Your task to perform on an android device: turn off picture-in-picture Image 0: 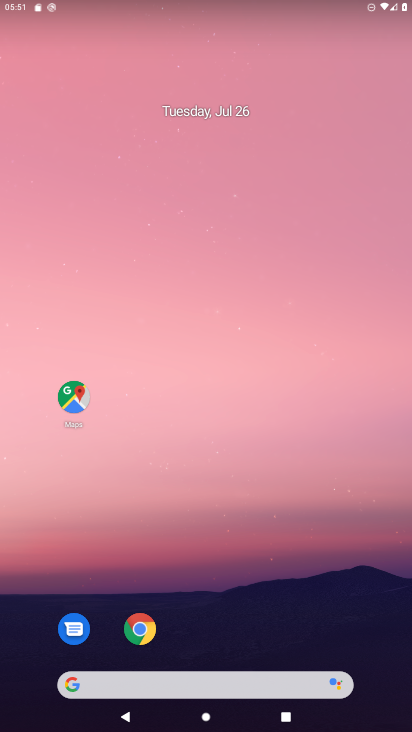
Step 0: drag from (210, 573) to (257, 39)
Your task to perform on an android device: turn off picture-in-picture Image 1: 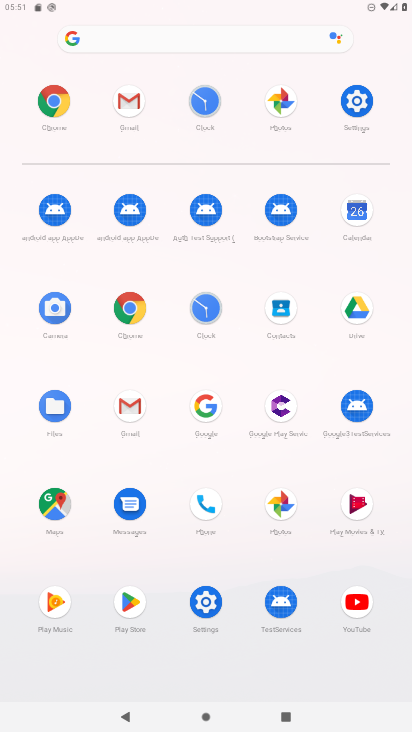
Step 1: click (359, 103)
Your task to perform on an android device: turn off picture-in-picture Image 2: 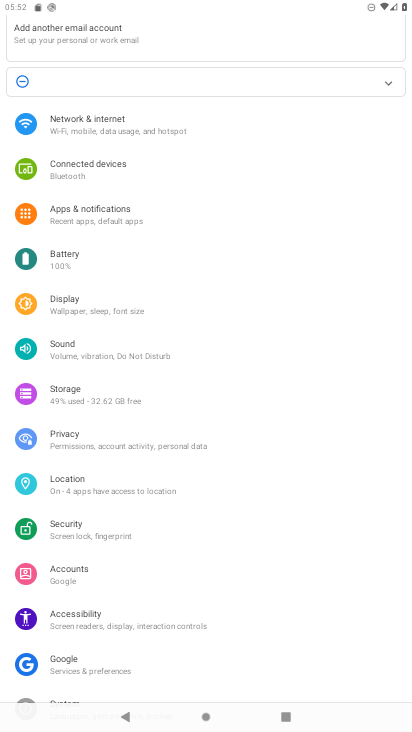
Step 2: click (89, 211)
Your task to perform on an android device: turn off picture-in-picture Image 3: 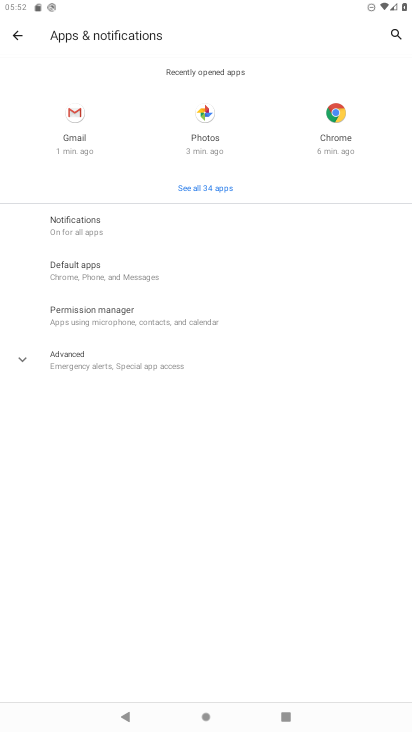
Step 3: click (93, 352)
Your task to perform on an android device: turn off picture-in-picture Image 4: 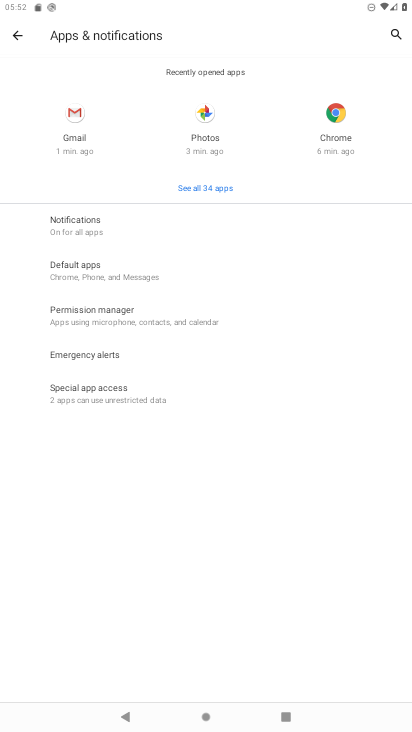
Step 4: click (78, 388)
Your task to perform on an android device: turn off picture-in-picture Image 5: 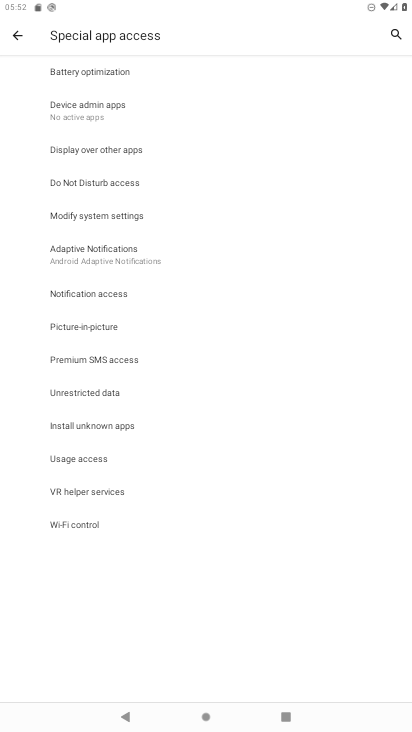
Step 5: click (99, 323)
Your task to perform on an android device: turn off picture-in-picture Image 6: 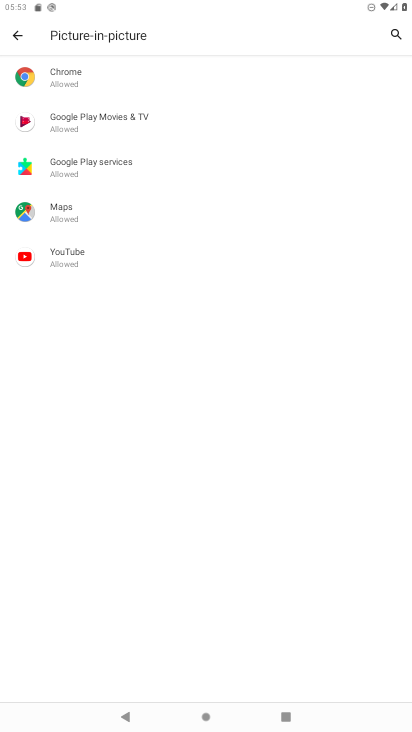
Step 6: click (53, 79)
Your task to perform on an android device: turn off picture-in-picture Image 7: 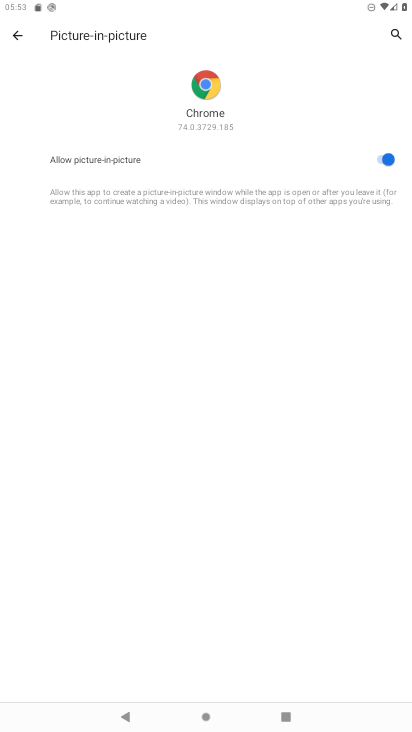
Step 7: click (381, 158)
Your task to perform on an android device: turn off picture-in-picture Image 8: 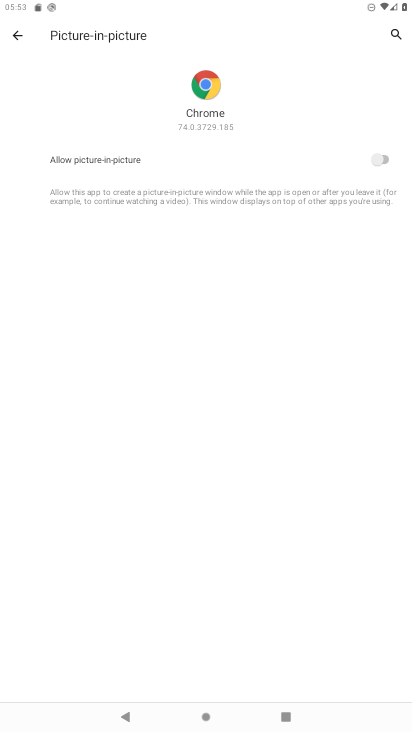
Step 8: task complete